Your task to perform on an android device: Open Youtube and go to "Your channel" Image 0: 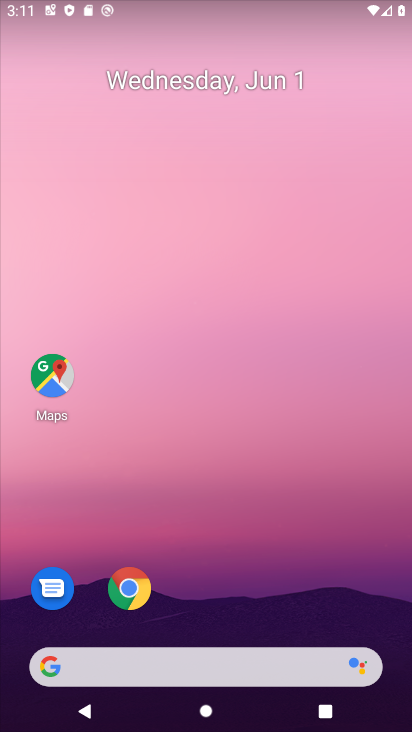
Step 0: drag from (270, 610) to (287, 142)
Your task to perform on an android device: Open Youtube and go to "Your channel" Image 1: 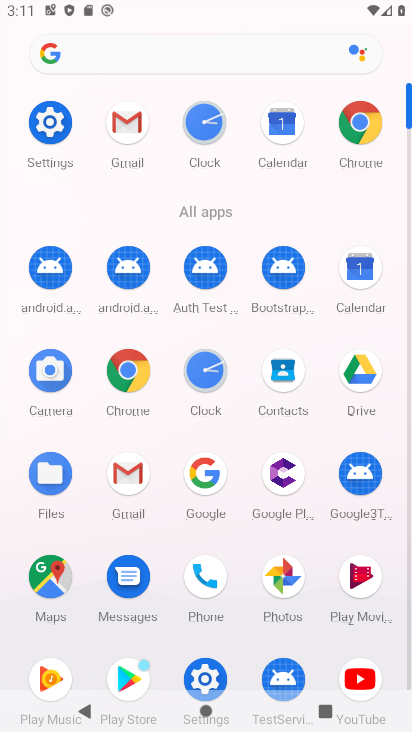
Step 1: click (365, 669)
Your task to perform on an android device: Open Youtube and go to "Your channel" Image 2: 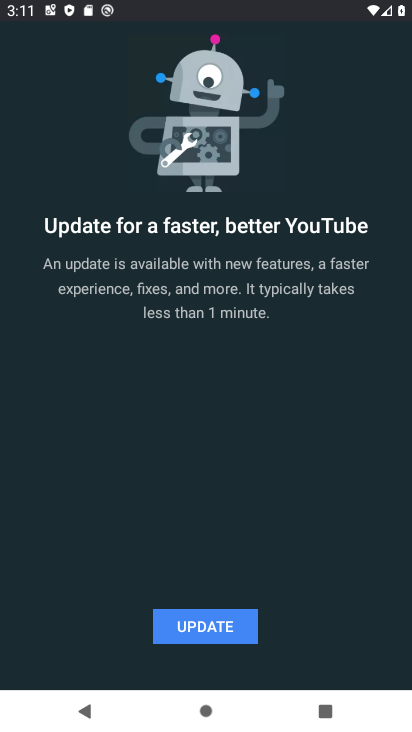
Step 2: click (223, 629)
Your task to perform on an android device: Open Youtube and go to "Your channel" Image 3: 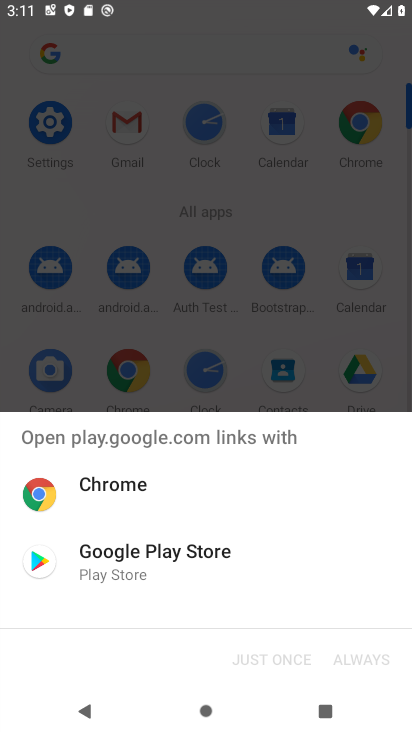
Step 3: click (164, 554)
Your task to perform on an android device: Open Youtube and go to "Your channel" Image 4: 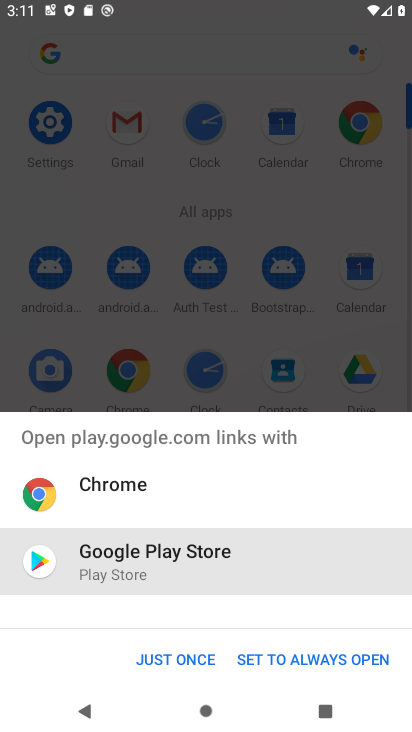
Step 4: click (194, 653)
Your task to perform on an android device: Open Youtube and go to "Your channel" Image 5: 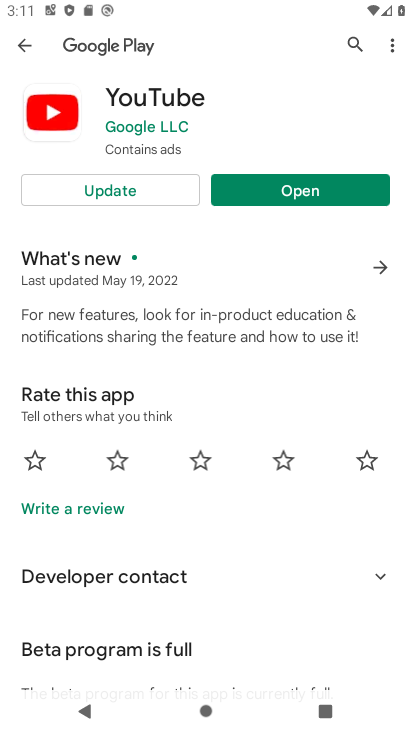
Step 5: click (127, 198)
Your task to perform on an android device: Open Youtube and go to "Your channel" Image 6: 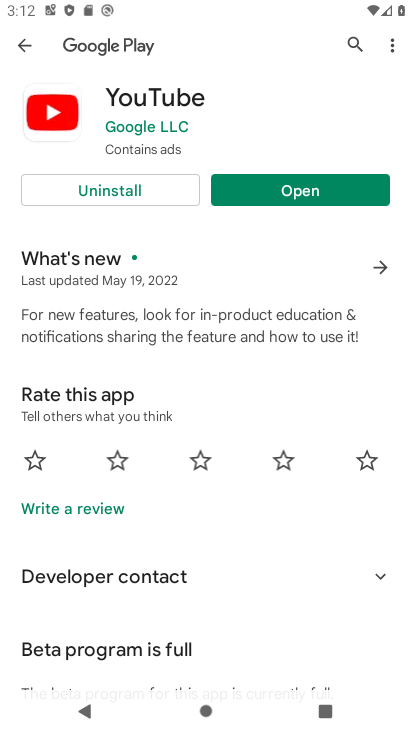
Step 6: click (249, 182)
Your task to perform on an android device: Open Youtube and go to "Your channel" Image 7: 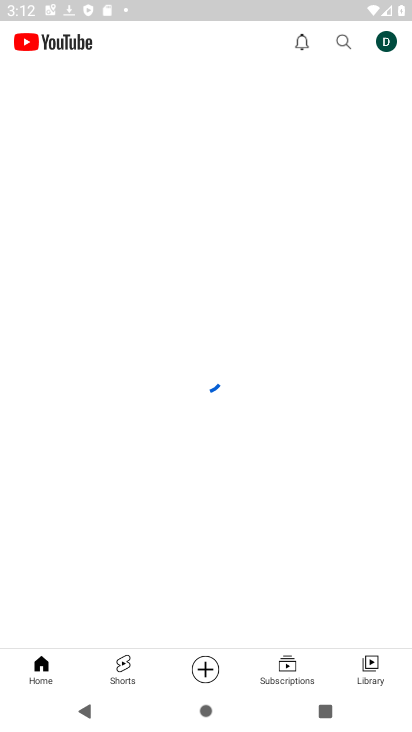
Step 7: click (361, 668)
Your task to perform on an android device: Open Youtube and go to "Your channel" Image 8: 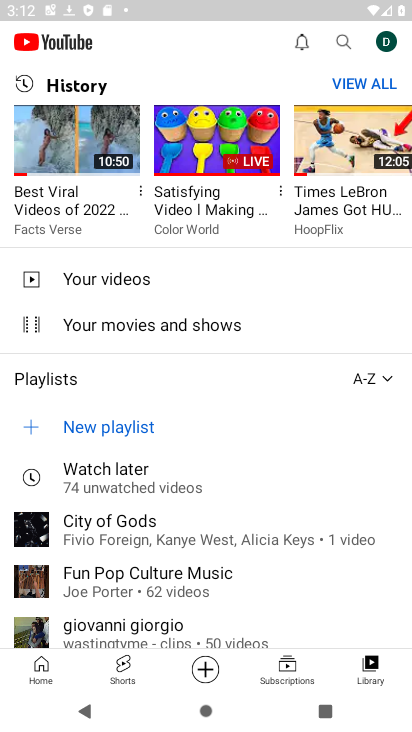
Step 8: click (389, 35)
Your task to perform on an android device: Open Youtube and go to "Your channel" Image 9: 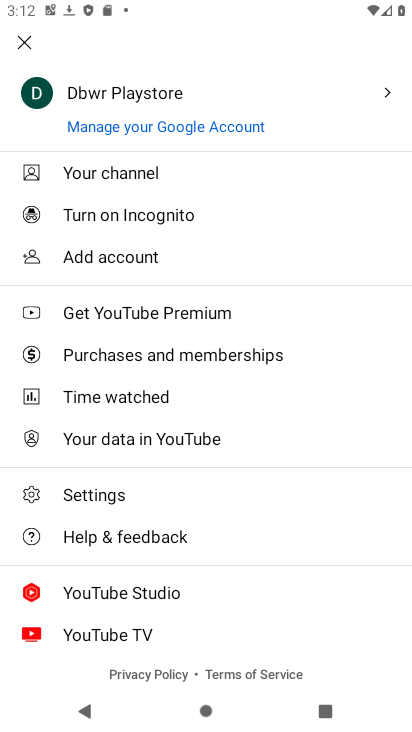
Step 9: click (139, 173)
Your task to perform on an android device: Open Youtube and go to "Your channel" Image 10: 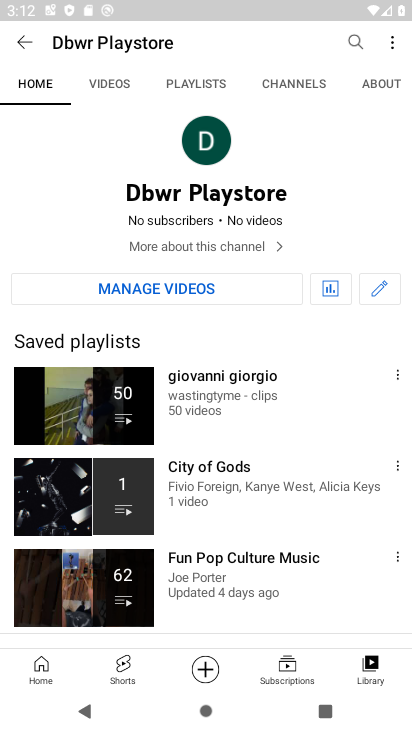
Step 10: task complete